Your task to perform on an android device: check battery use Image 0: 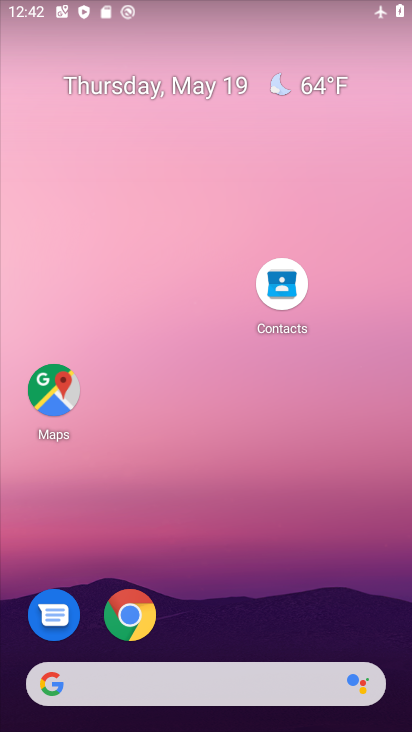
Step 0: drag from (280, 556) to (361, 104)
Your task to perform on an android device: check battery use Image 1: 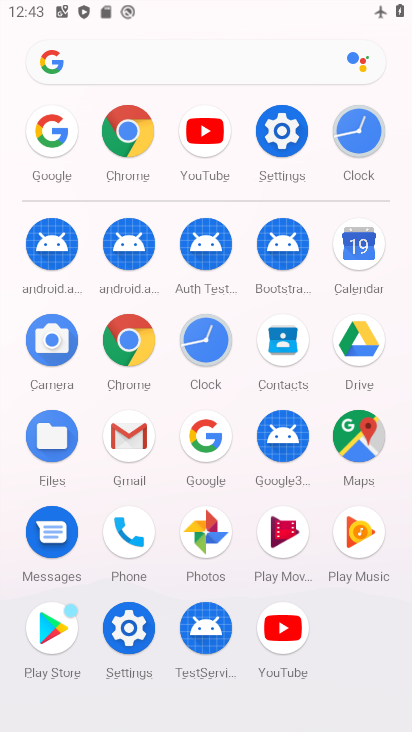
Step 1: click (300, 148)
Your task to perform on an android device: check battery use Image 2: 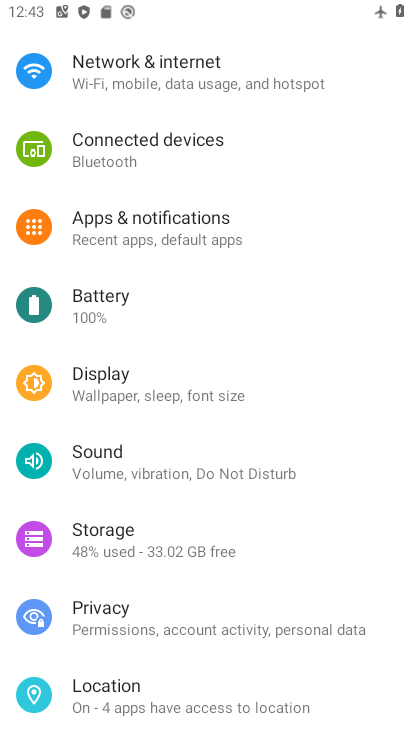
Step 2: click (153, 304)
Your task to perform on an android device: check battery use Image 3: 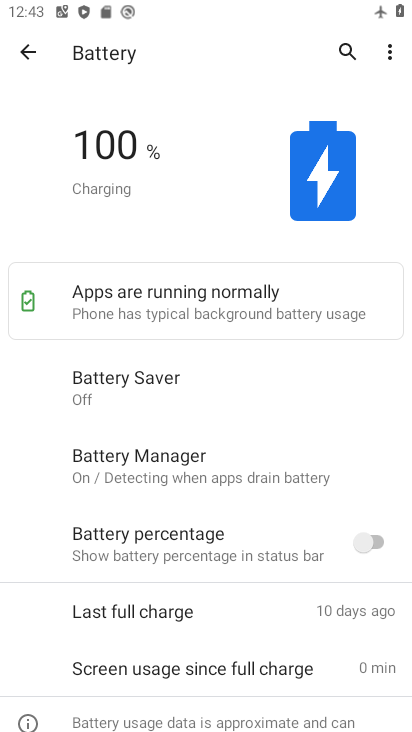
Step 3: task complete